Your task to perform on an android device: Search for the best books on Goodreads. Image 0: 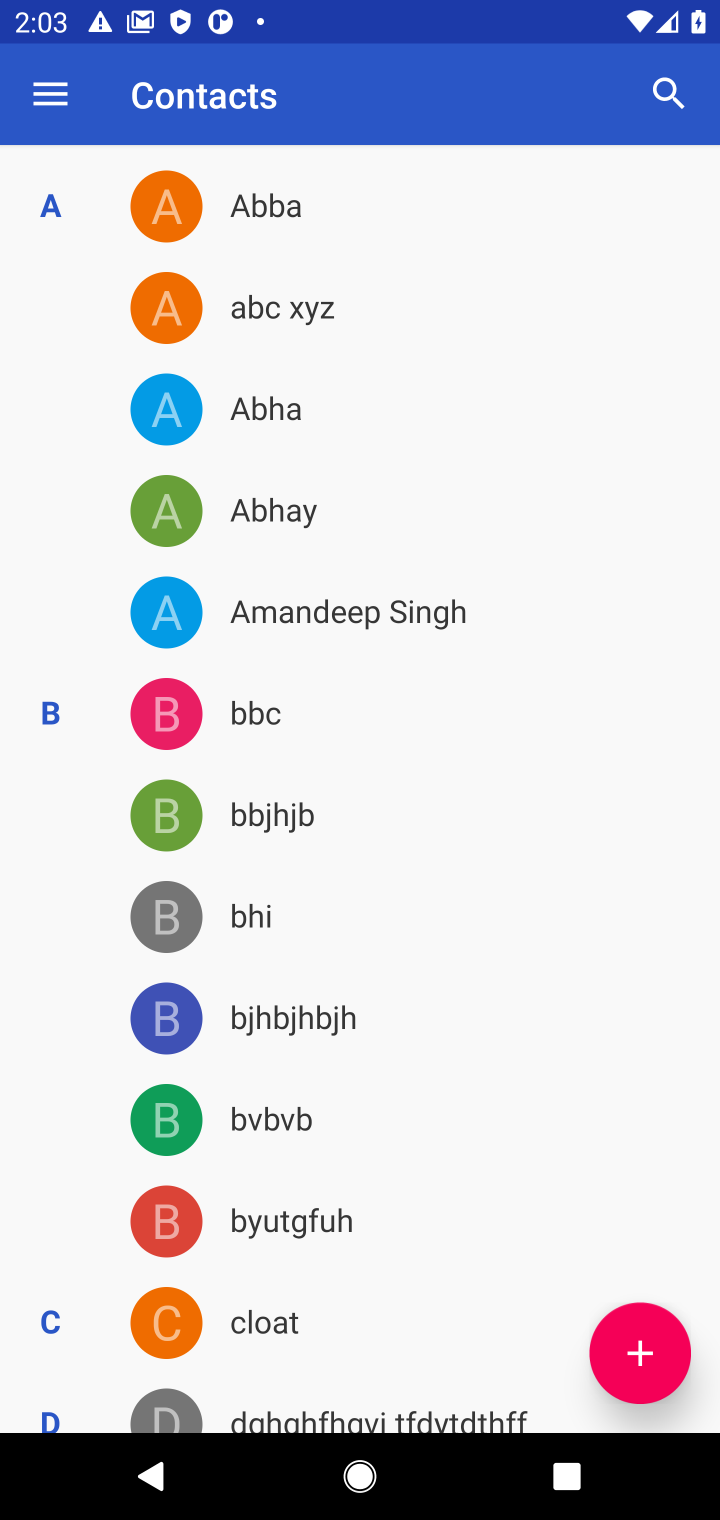
Step 0: press home button
Your task to perform on an android device: Search for the best books on Goodreads. Image 1: 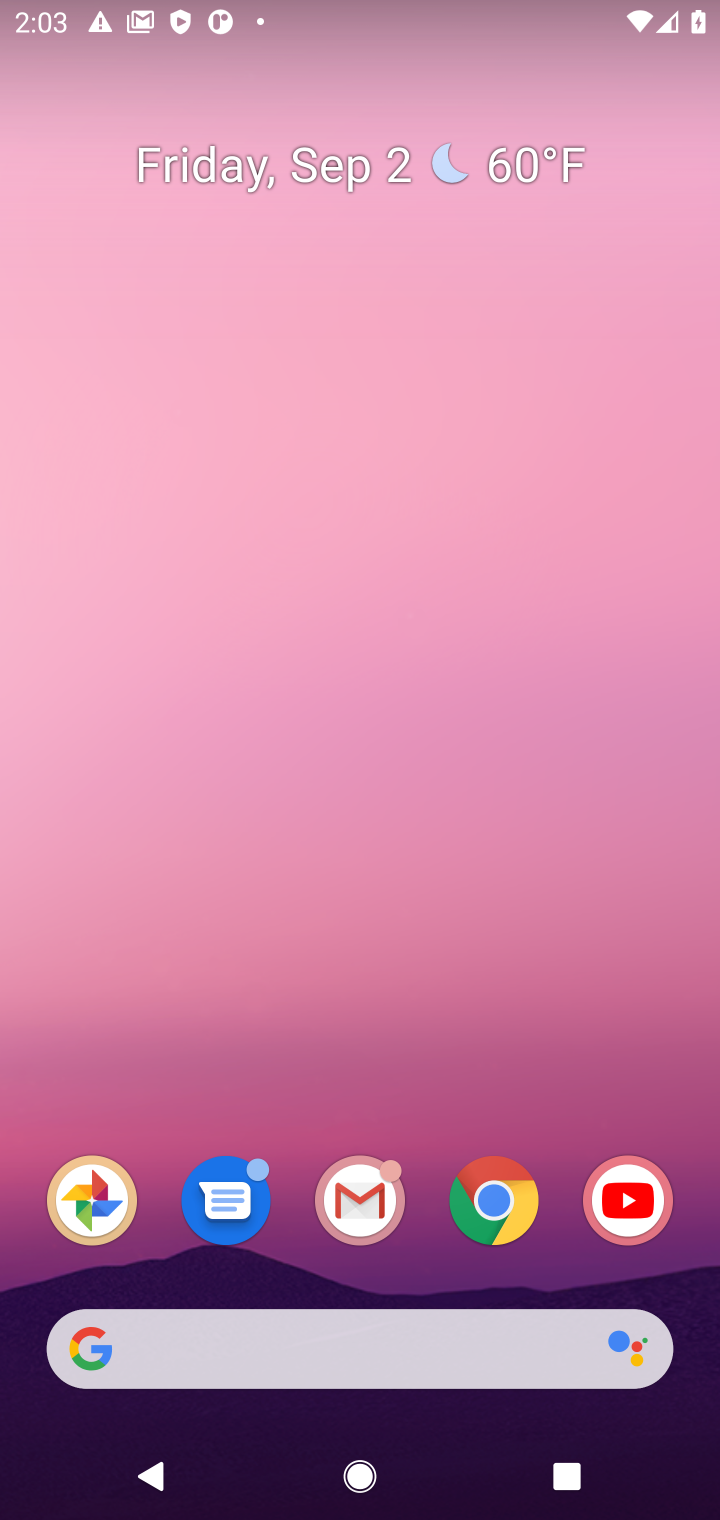
Step 1: click (495, 1202)
Your task to perform on an android device: Search for the best books on Goodreads. Image 2: 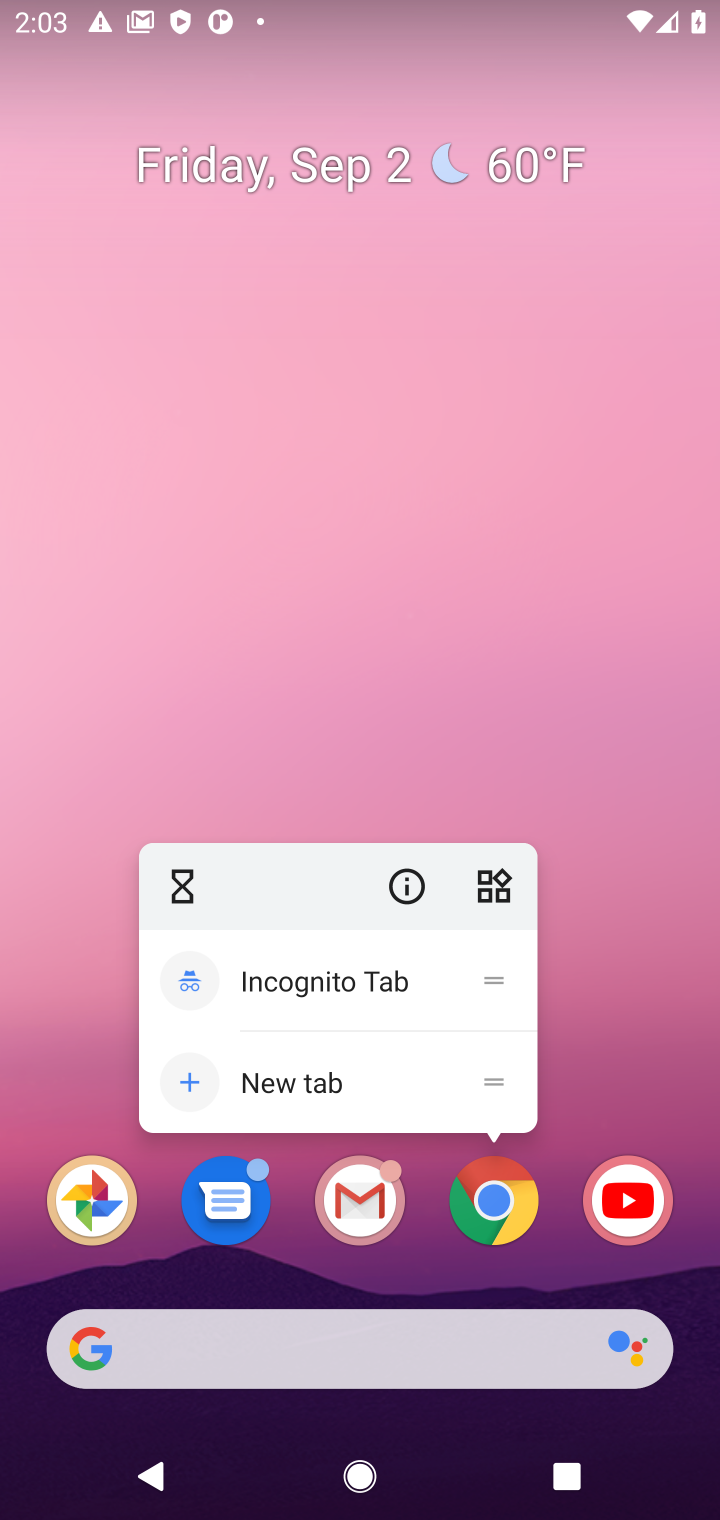
Step 2: click (495, 1204)
Your task to perform on an android device: Search for the best books on Goodreads. Image 3: 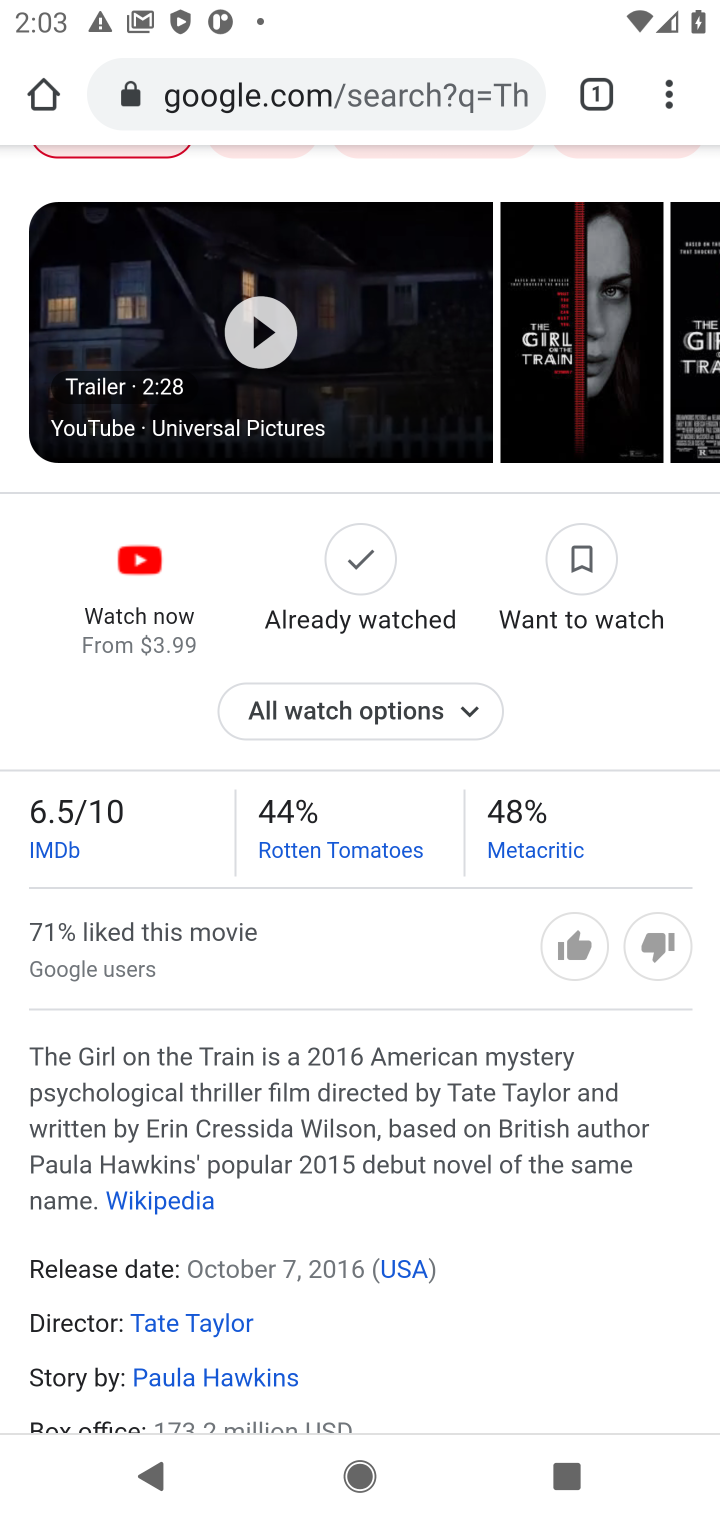
Step 3: click (435, 89)
Your task to perform on an android device: Search for the best books on Goodreads. Image 4: 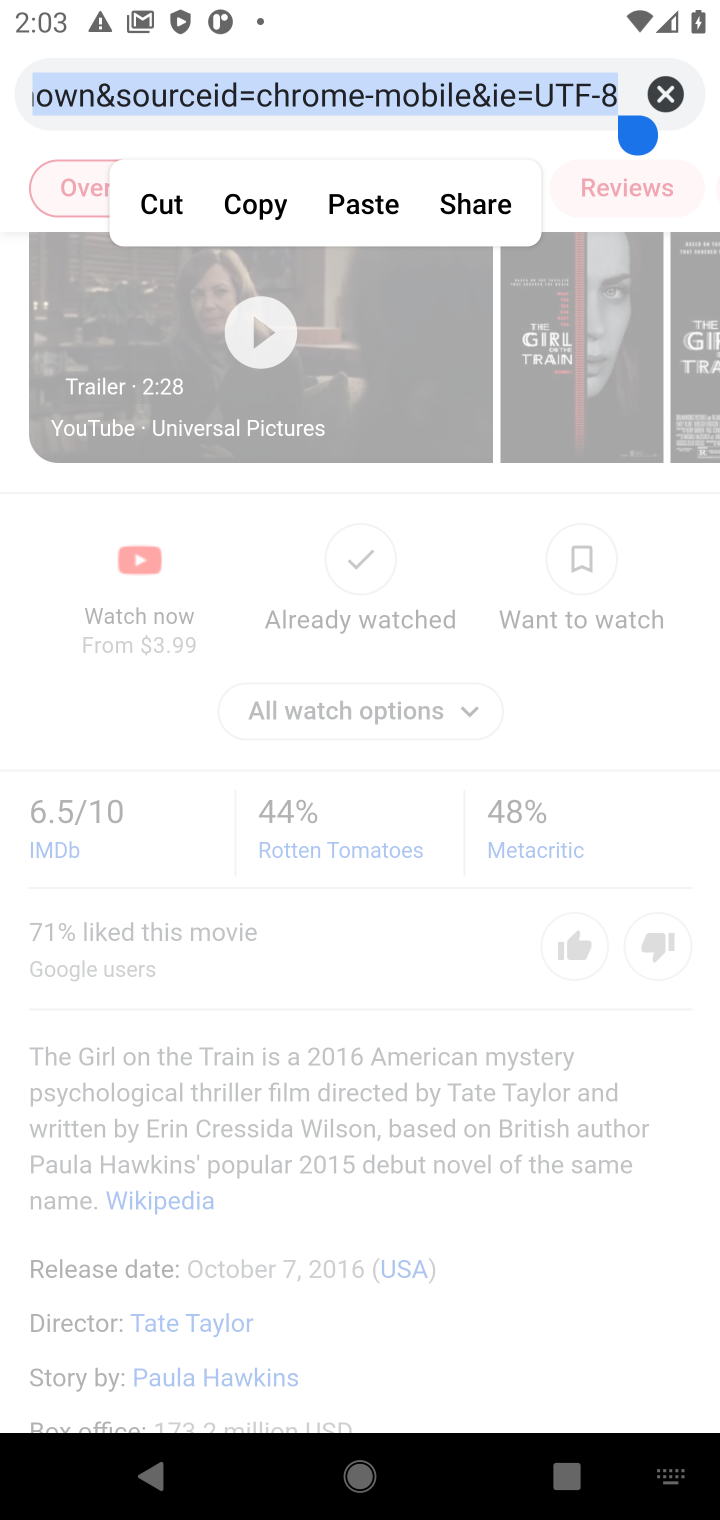
Step 4: click (657, 86)
Your task to perform on an android device: Search for the best books on Goodreads. Image 5: 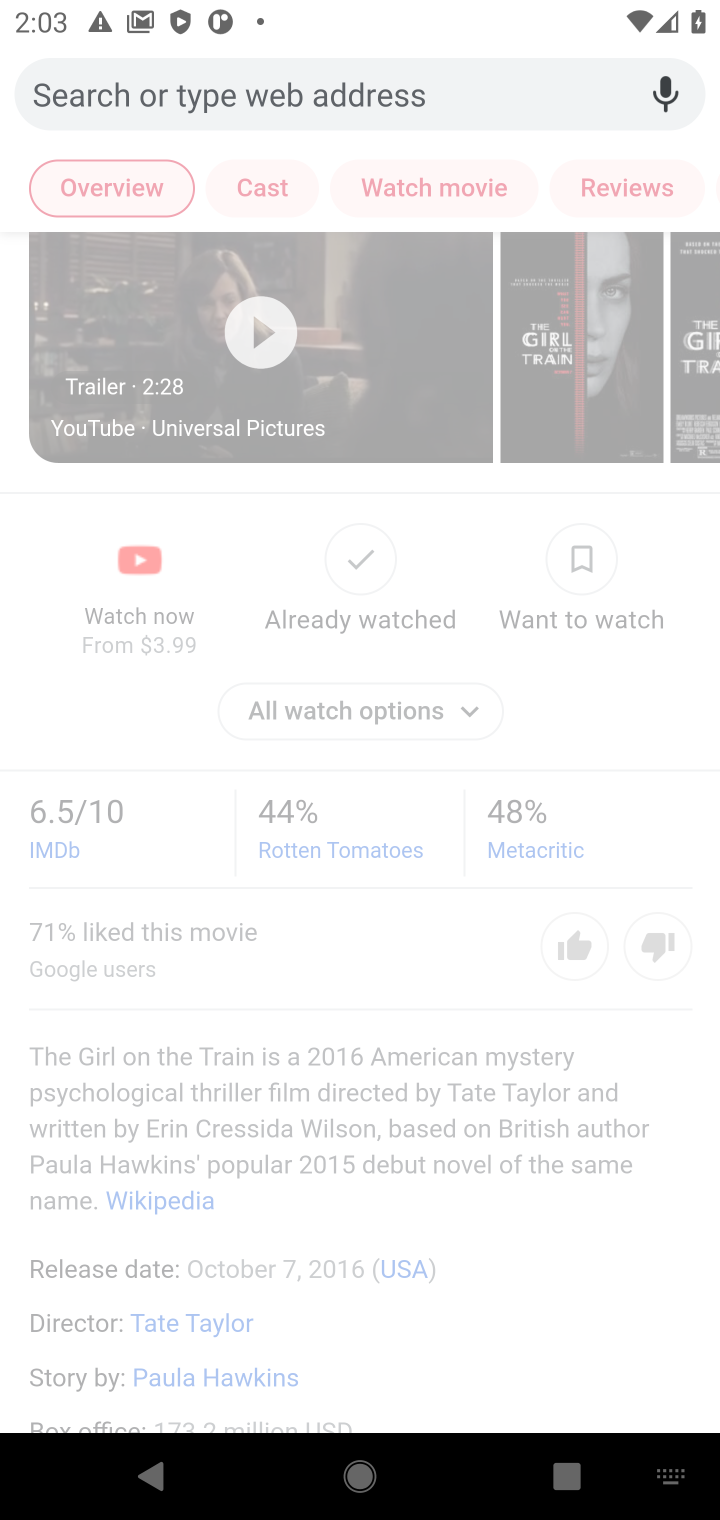
Step 5: type " Goodreads"
Your task to perform on an android device: Search for the best books on Goodreads. Image 6: 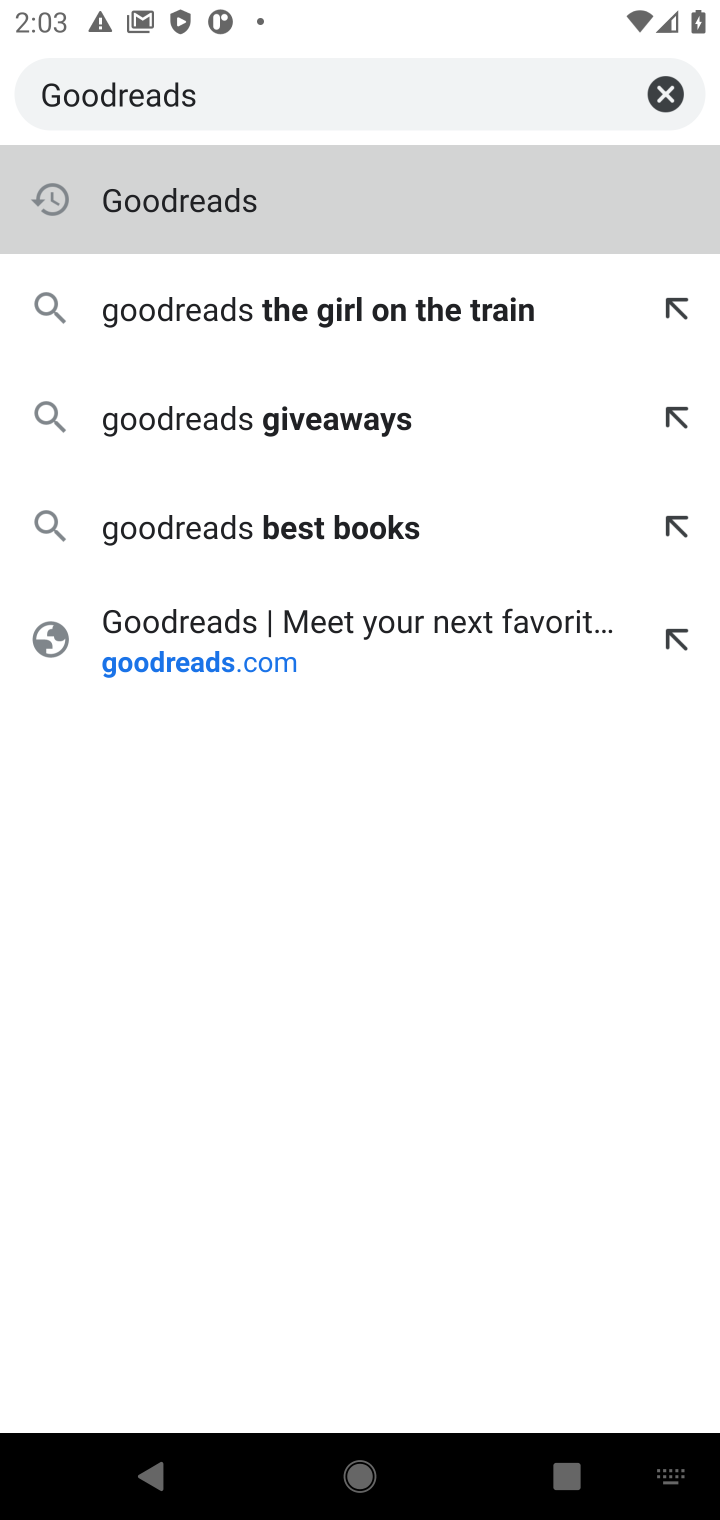
Step 6: click (143, 210)
Your task to perform on an android device: Search for the best books on Goodreads. Image 7: 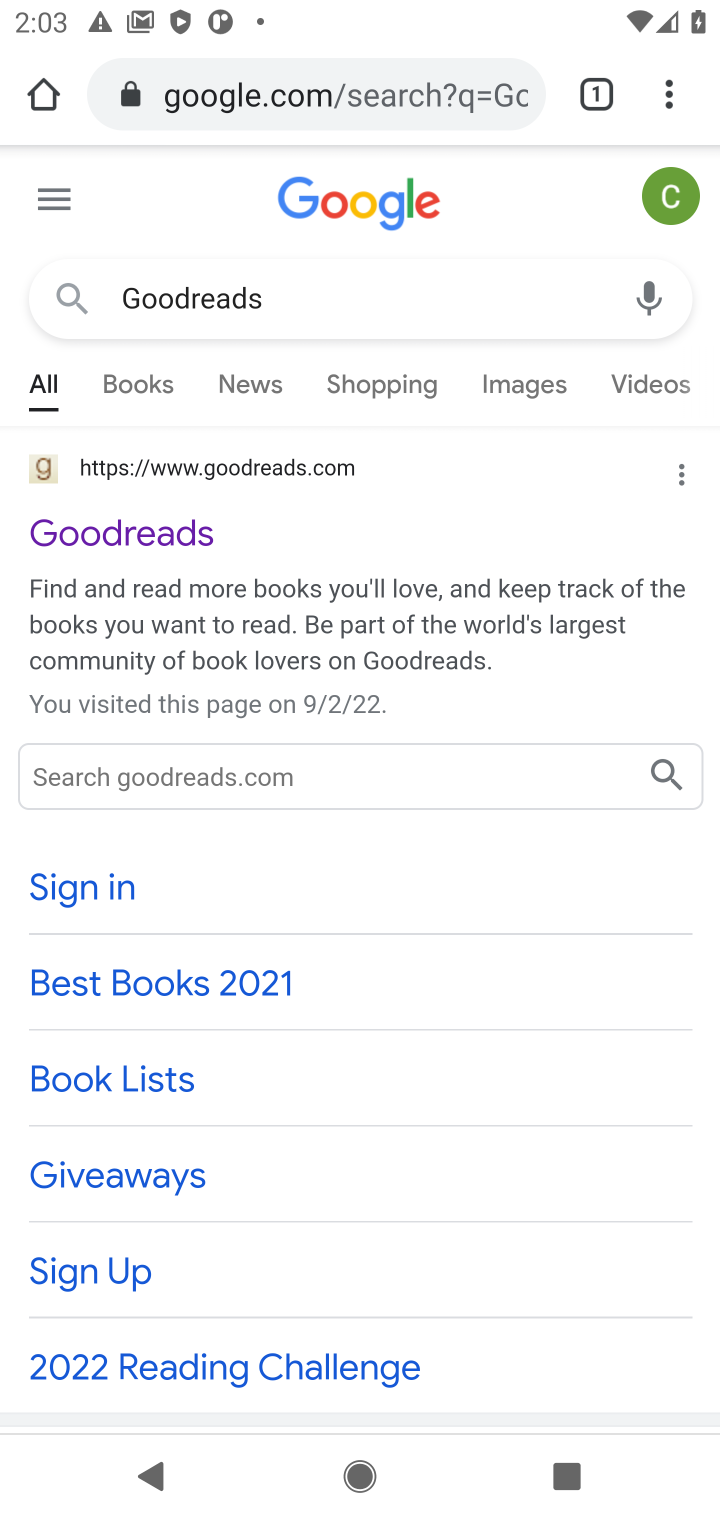
Step 7: click (153, 540)
Your task to perform on an android device: Search for the best books on Goodreads. Image 8: 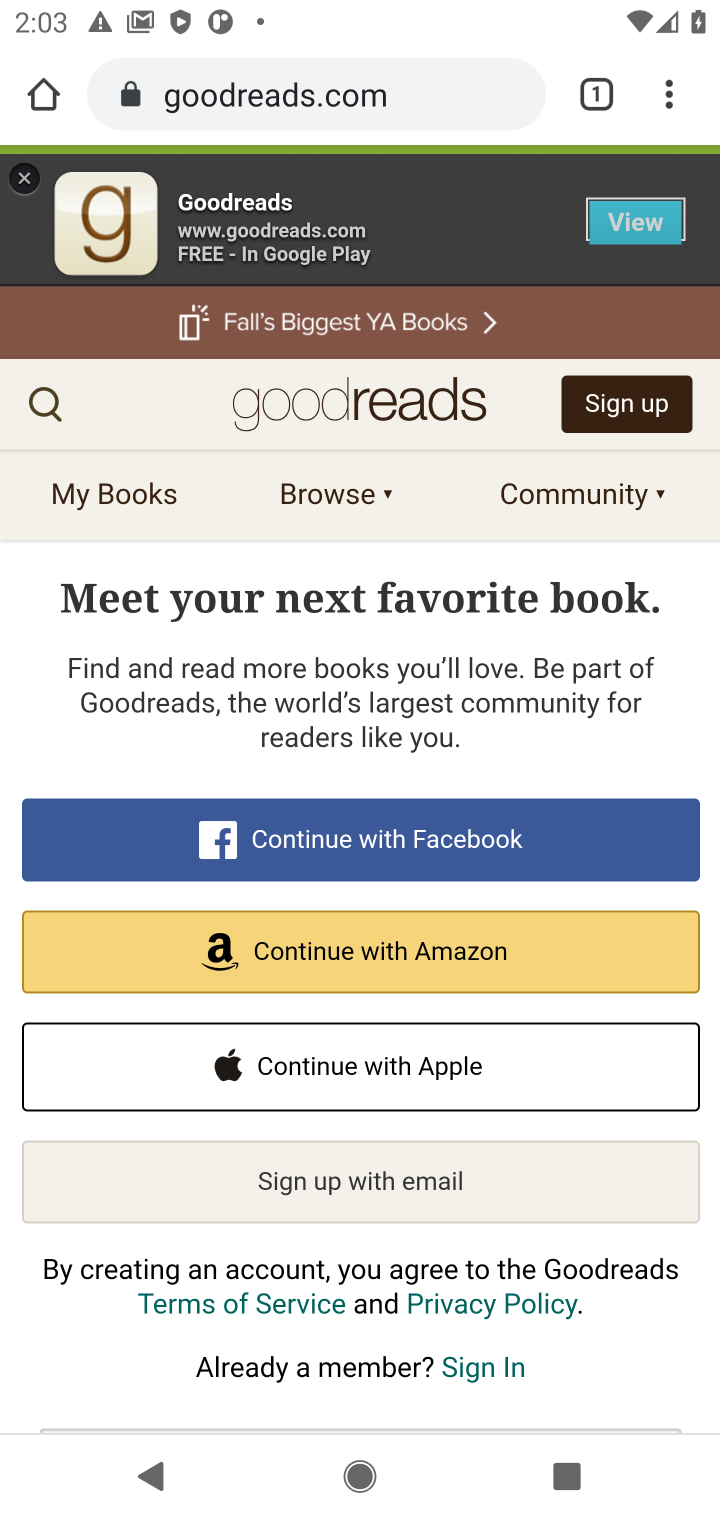
Step 8: click (45, 411)
Your task to perform on an android device: Search for the best books on Goodreads. Image 9: 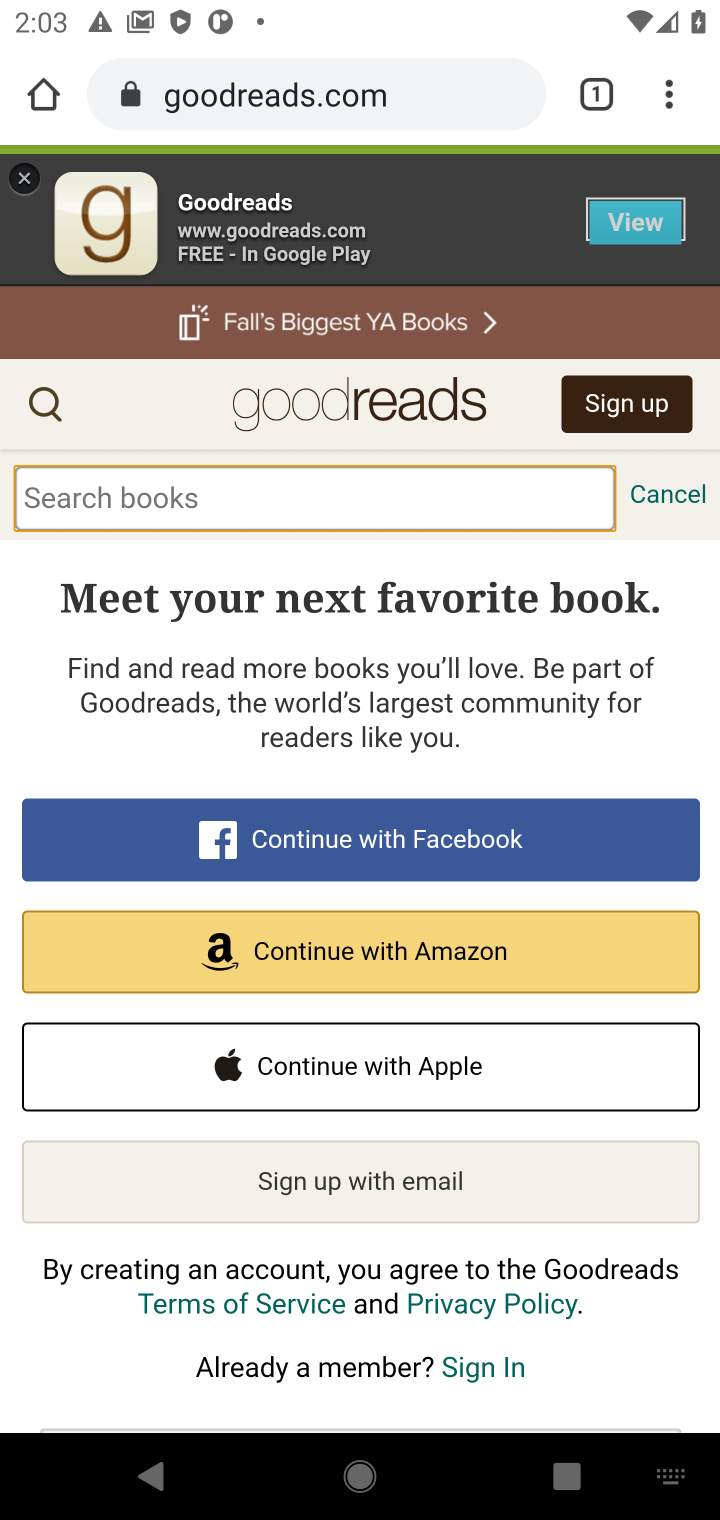
Step 9: press enter
Your task to perform on an android device: Search for the best books on Goodreads. Image 10: 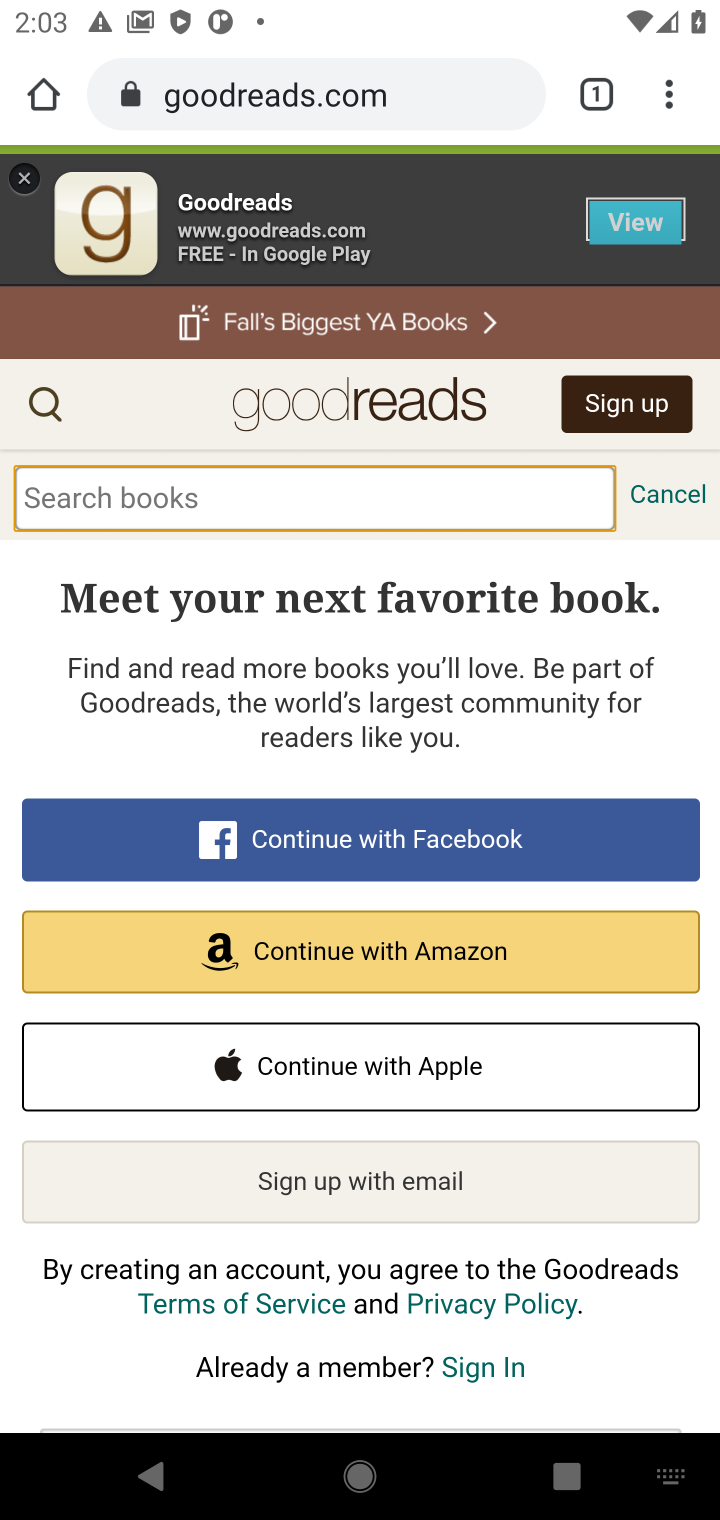
Step 10: type " best books "
Your task to perform on an android device: Search for the best books on Goodreads. Image 11: 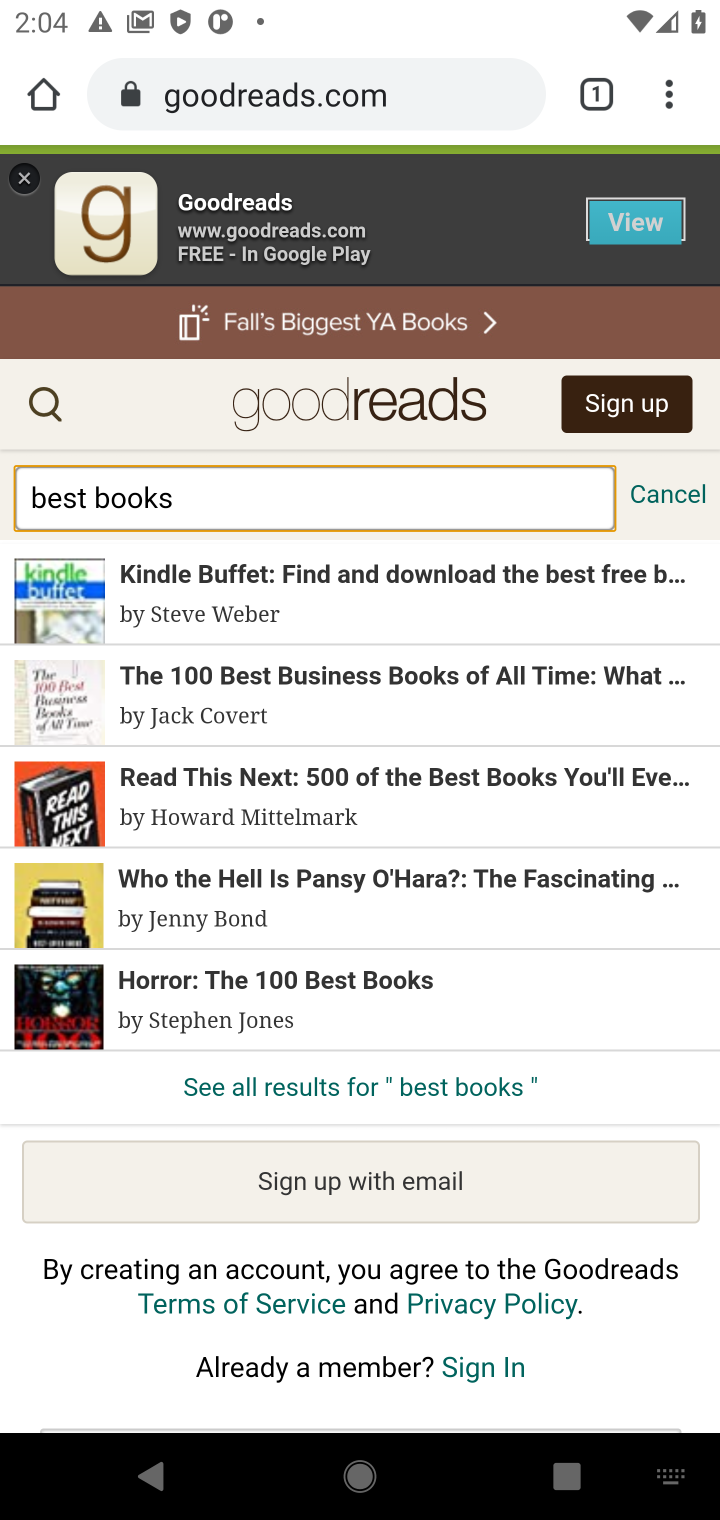
Step 11: click (242, 1080)
Your task to perform on an android device: Search for the best books on Goodreads. Image 12: 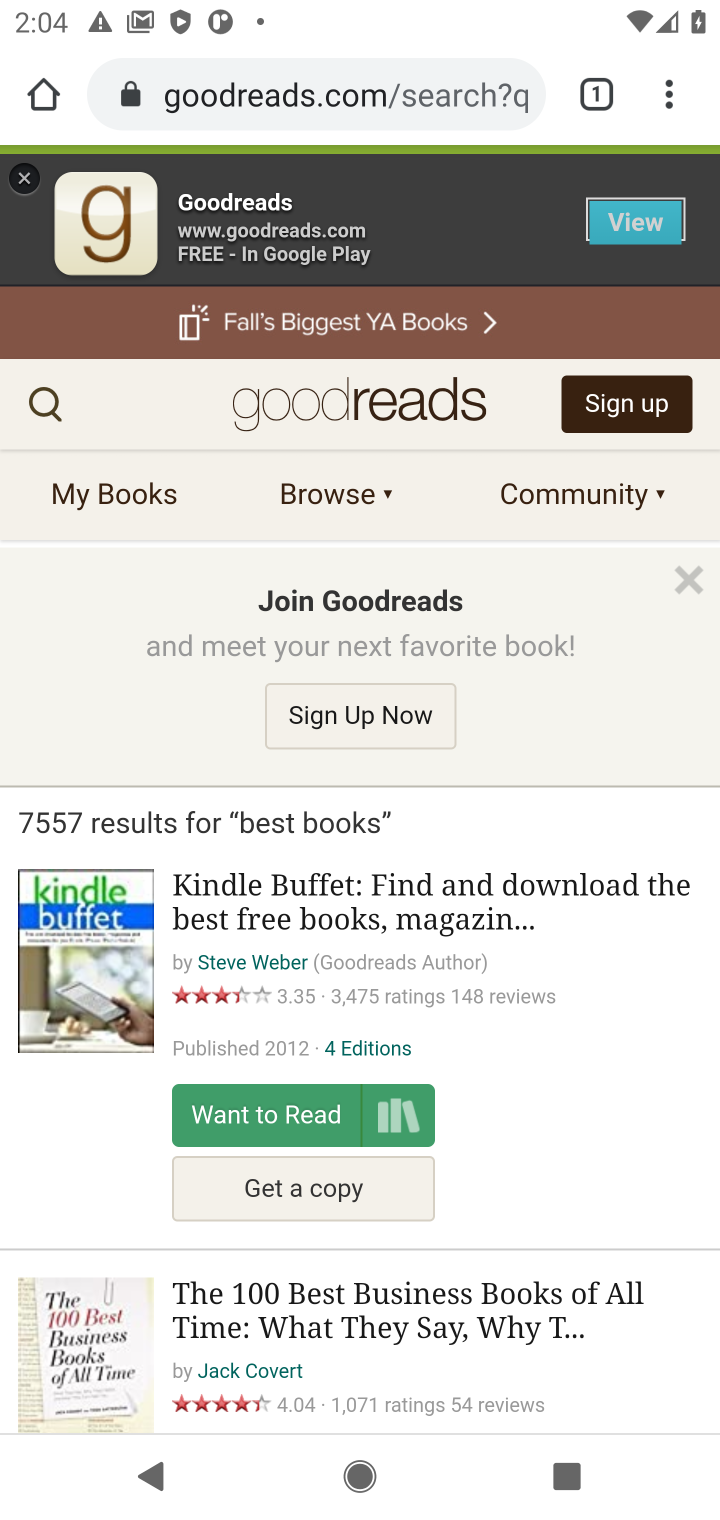
Step 12: task complete